Your task to perform on an android device: open app "DoorDash - Food Delivery" Image 0: 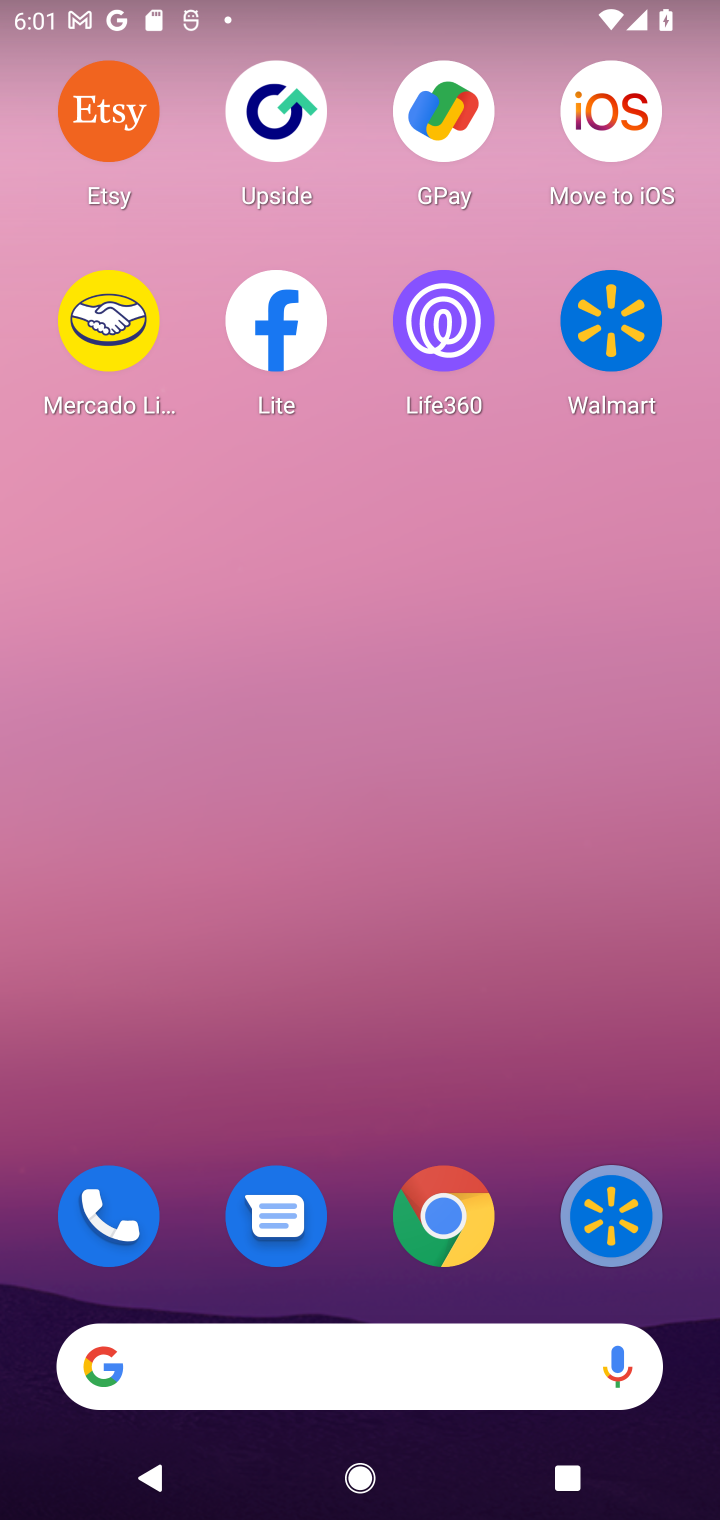
Step 0: drag from (534, 1295) to (481, 210)
Your task to perform on an android device: open app "DoorDash - Food Delivery" Image 1: 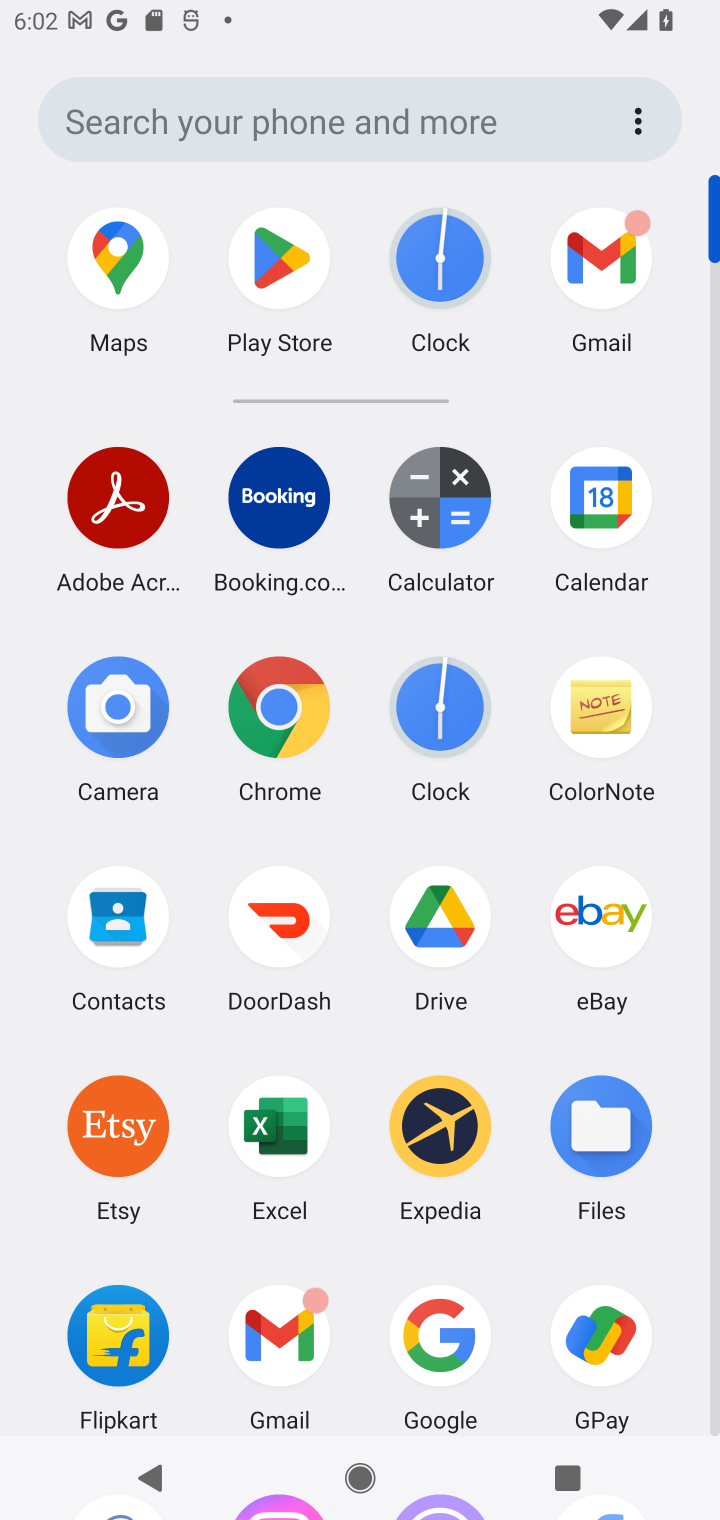
Step 1: drag from (521, 1308) to (531, 481)
Your task to perform on an android device: open app "DoorDash - Food Delivery" Image 2: 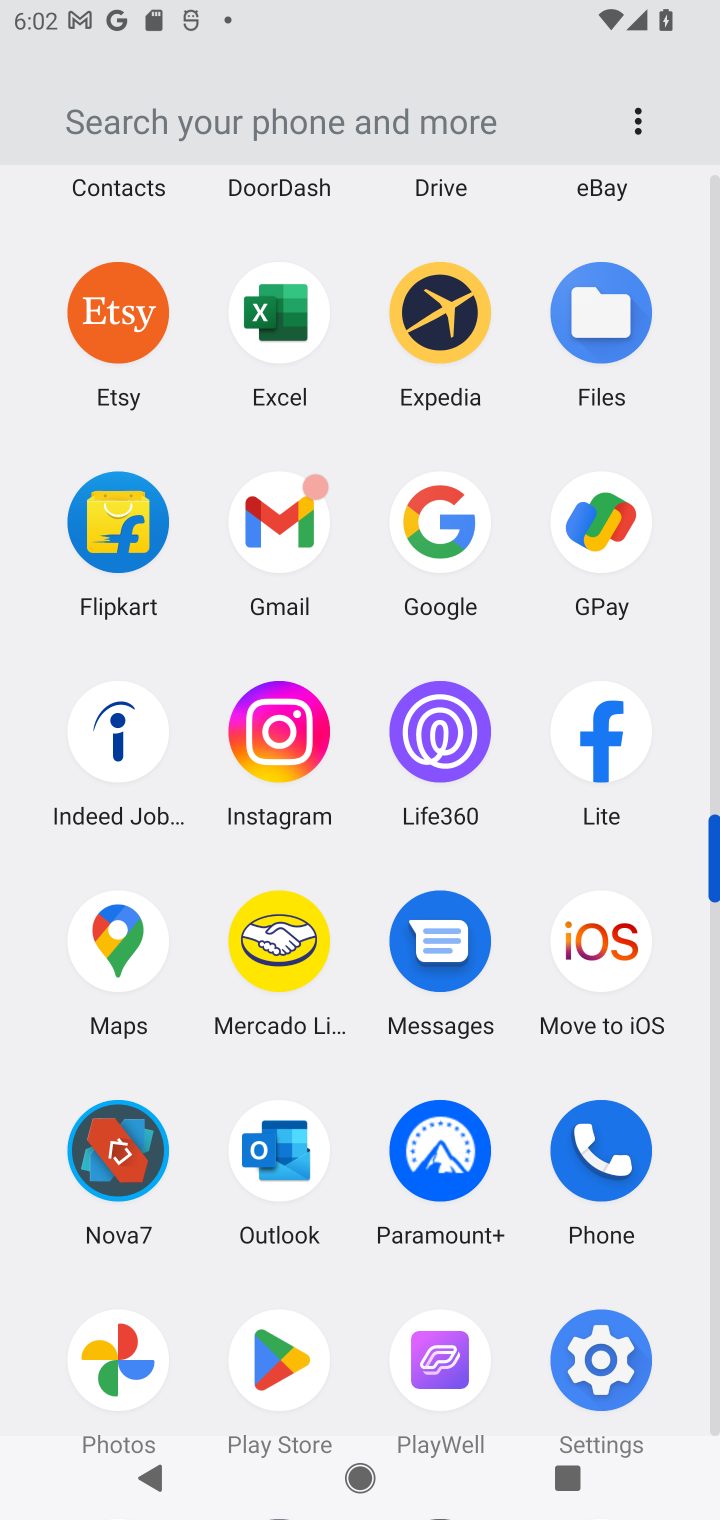
Step 2: click (281, 1365)
Your task to perform on an android device: open app "DoorDash - Food Delivery" Image 3: 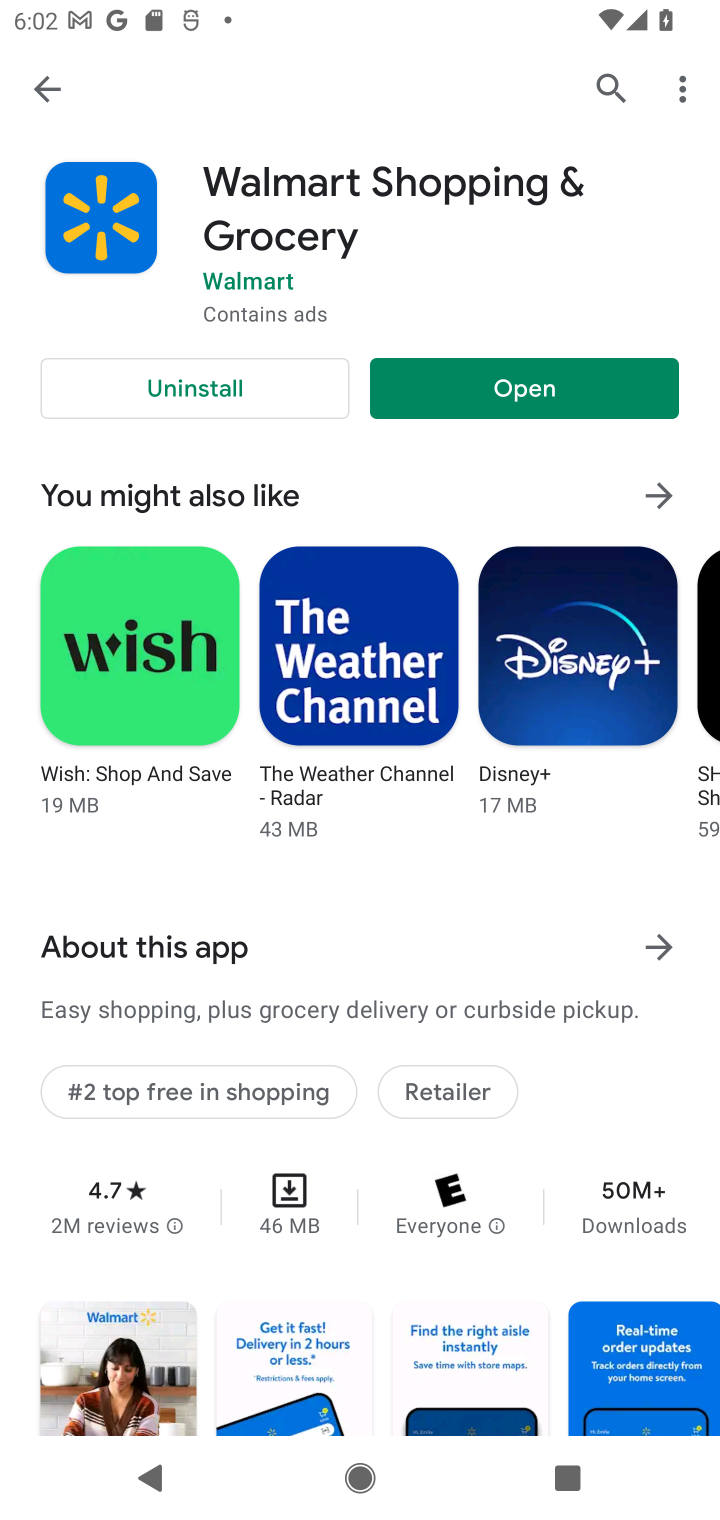
Step 3: click (604, 89)
Your task to perform on an android device: open app "DoorDash - Food Delivery" Image 4: 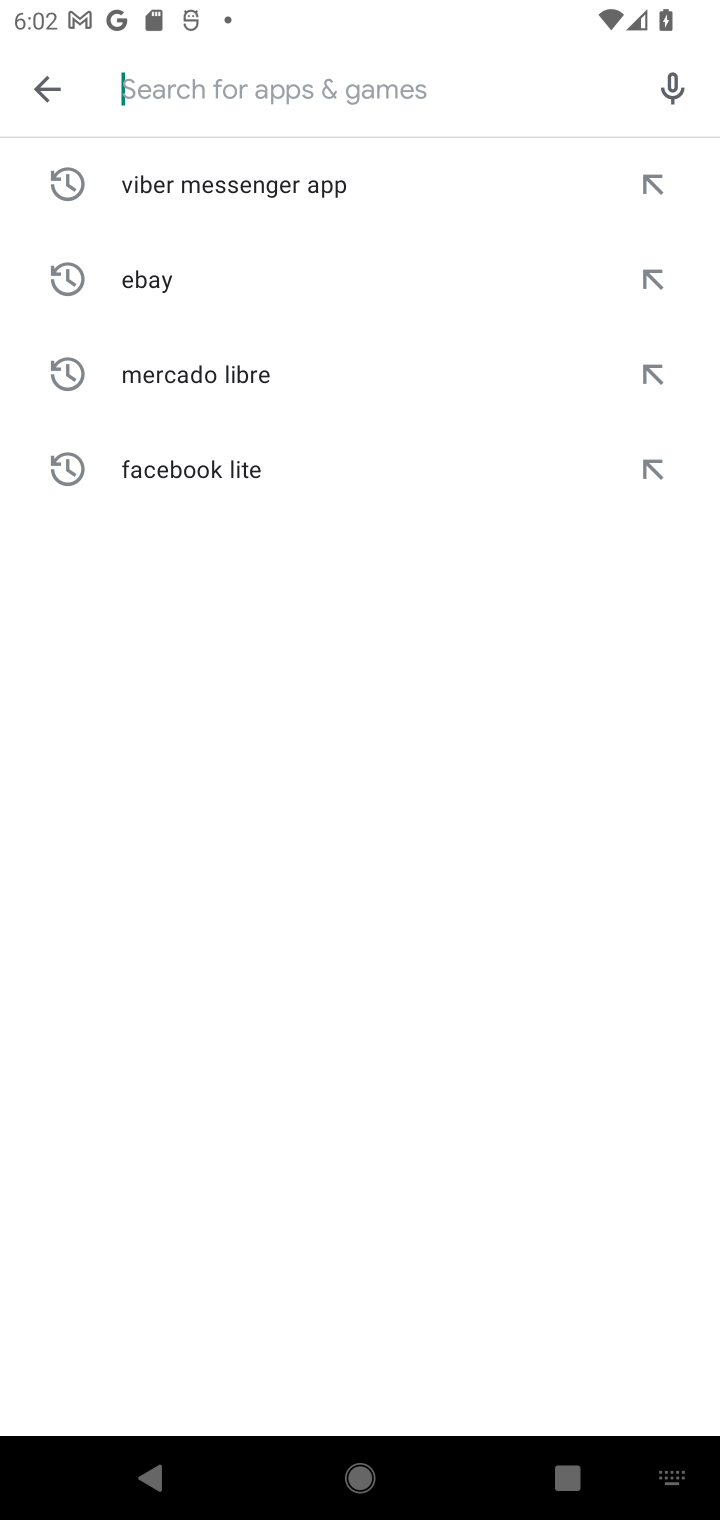
Step 4: type "DoorDash - Food Delivery"
Your task to perform on an android device: open app "DoorDash - Food Delivery" Image 5: 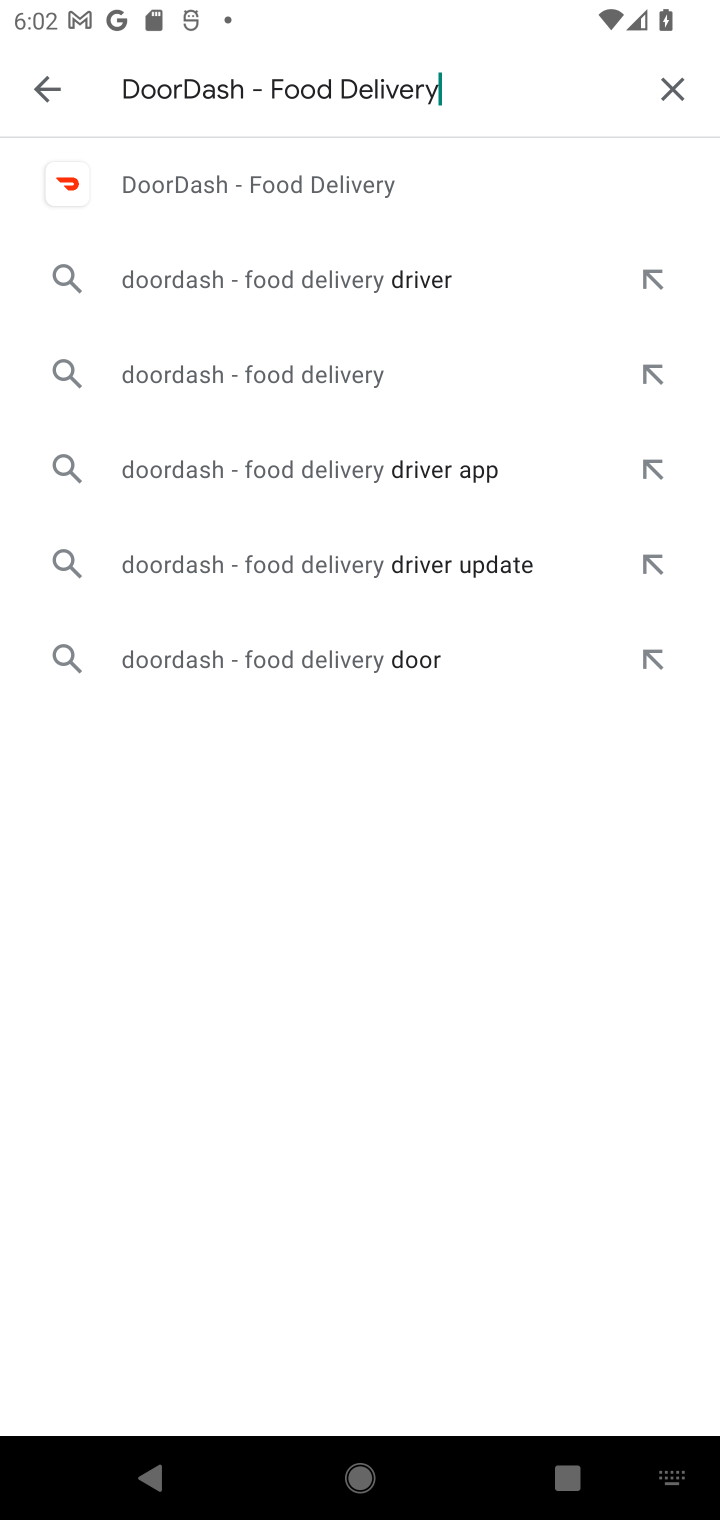
Step 5: click (231, 182)
Your task to perform on an android device: open app "DoorDash - Food Delivery" Image 6: 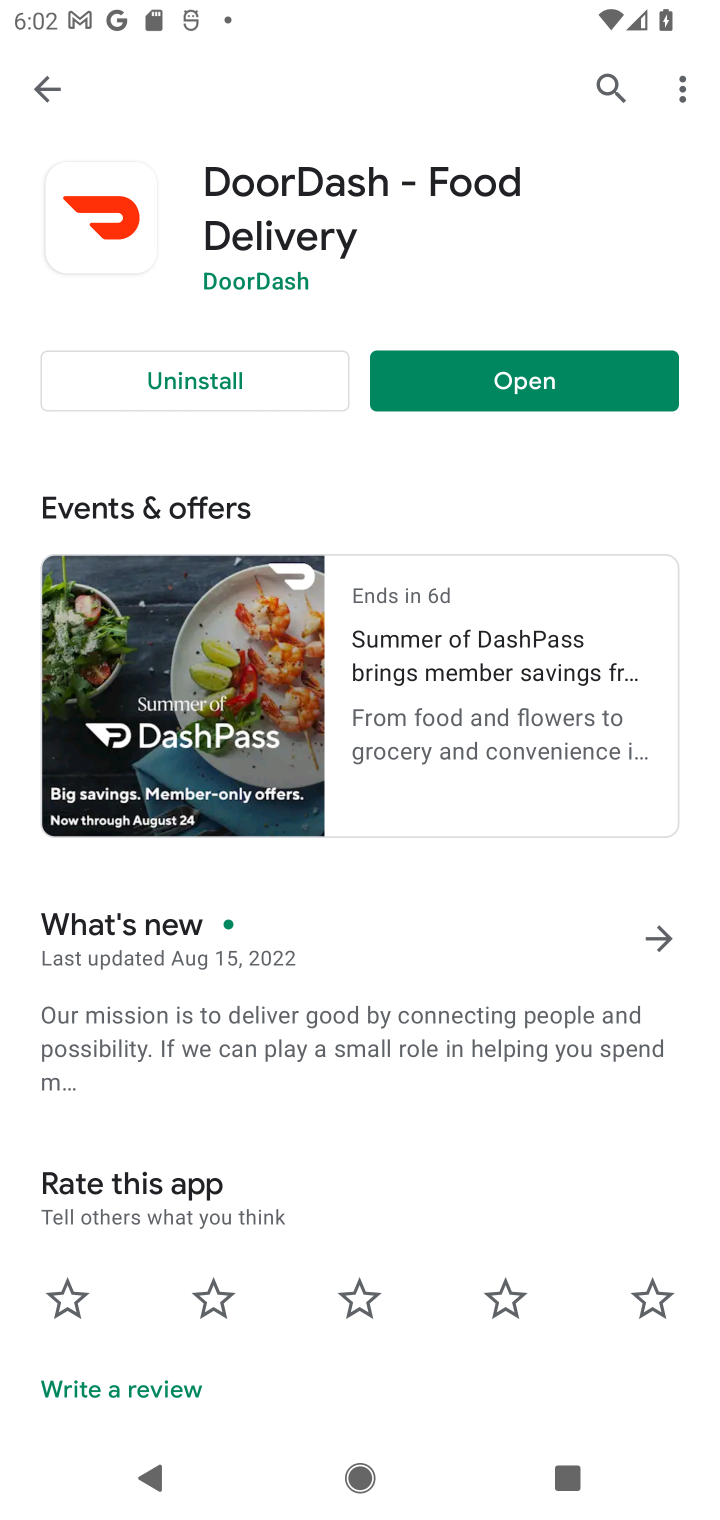
Step 6: click (528, 388)
Your task to perform on an android device: open app "DoorDash - Food Delivery" Image 7: 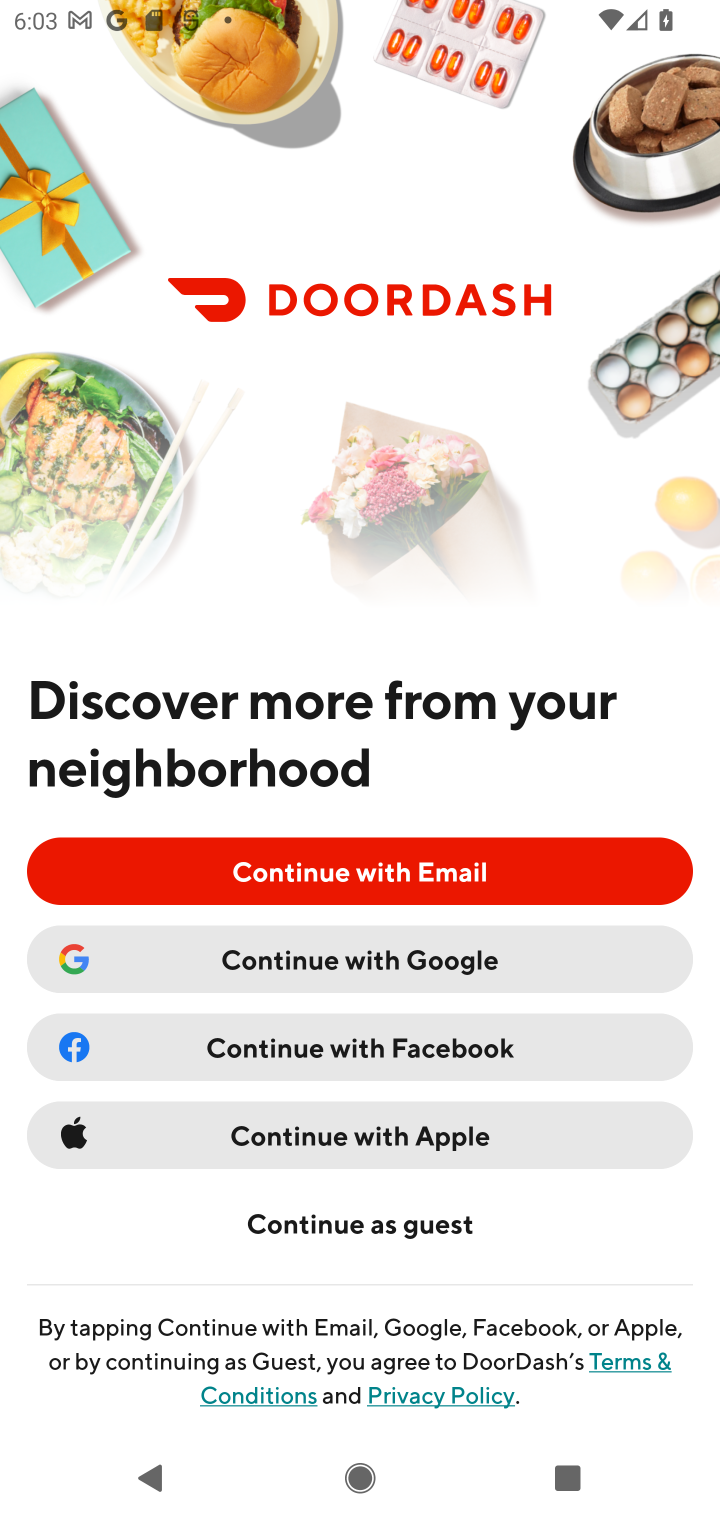
Step 7: task complete